Your task to perform on an android device: find which apps use the phone's location Image 0: 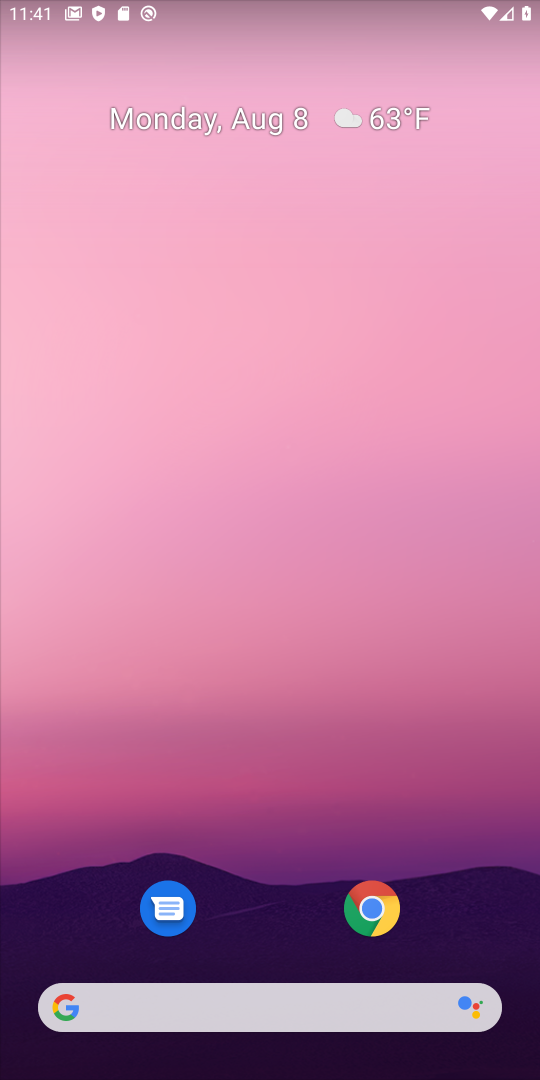
Step 0: drag from (459, 943) to (351, 120)
Your task to perform on an android device: find which apps use the phone's location Image 1: 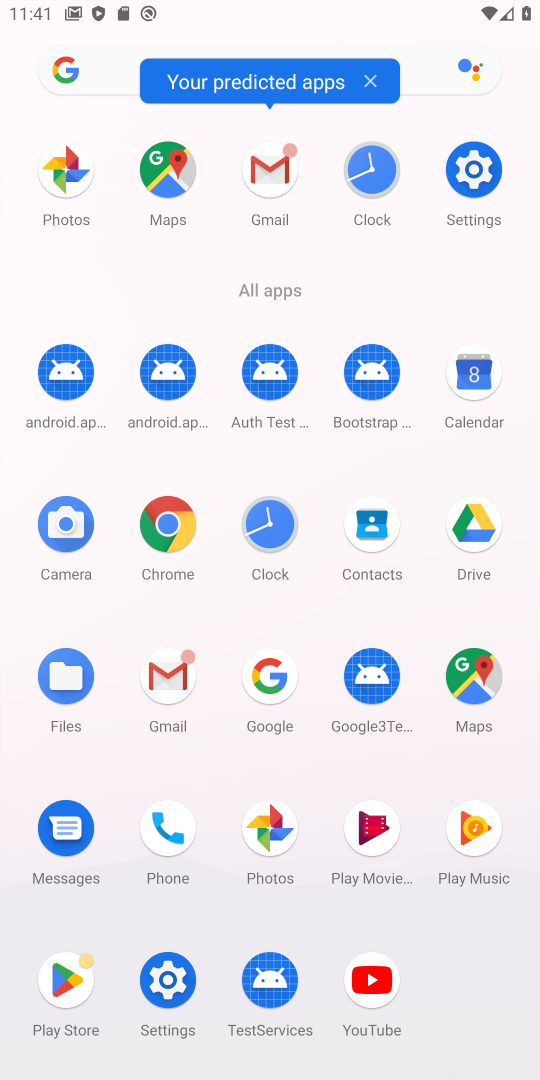
Step 1: click (483, 191)
Your task to perform on an android device: find which apps use the phone's location Image 2: 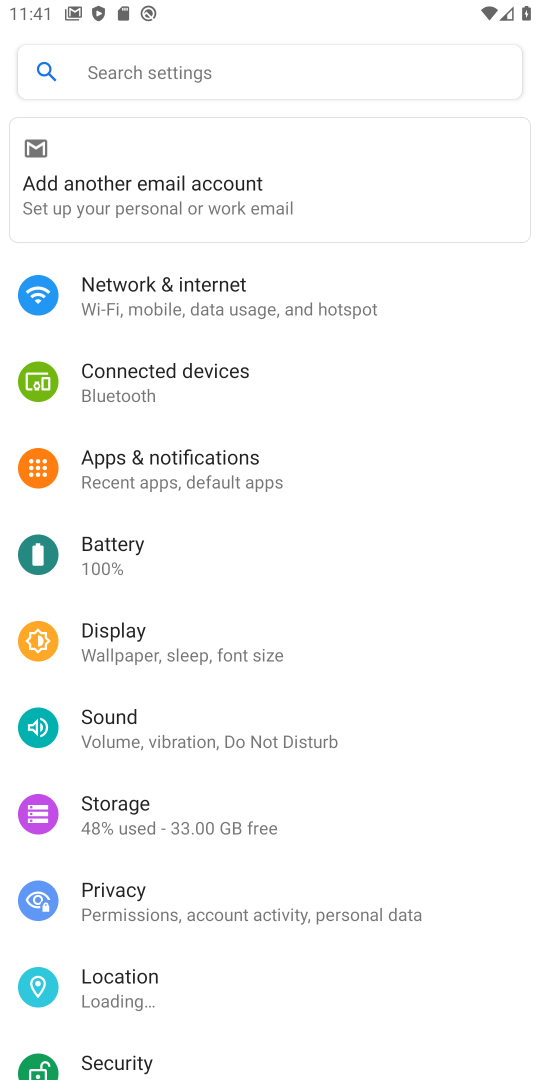
Step 2: click (237, 999)
Your task to perform on an android device: find which apps use the phone's location Image 3: 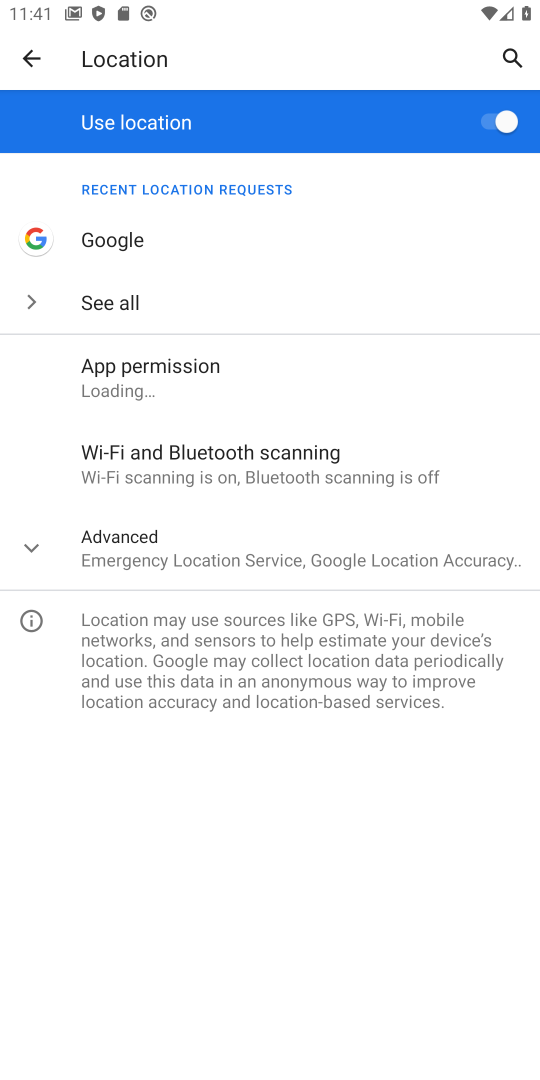
Step 3: click (257, 361)
Your task to perform on an android device: find which apps use the phone's location Image 4: 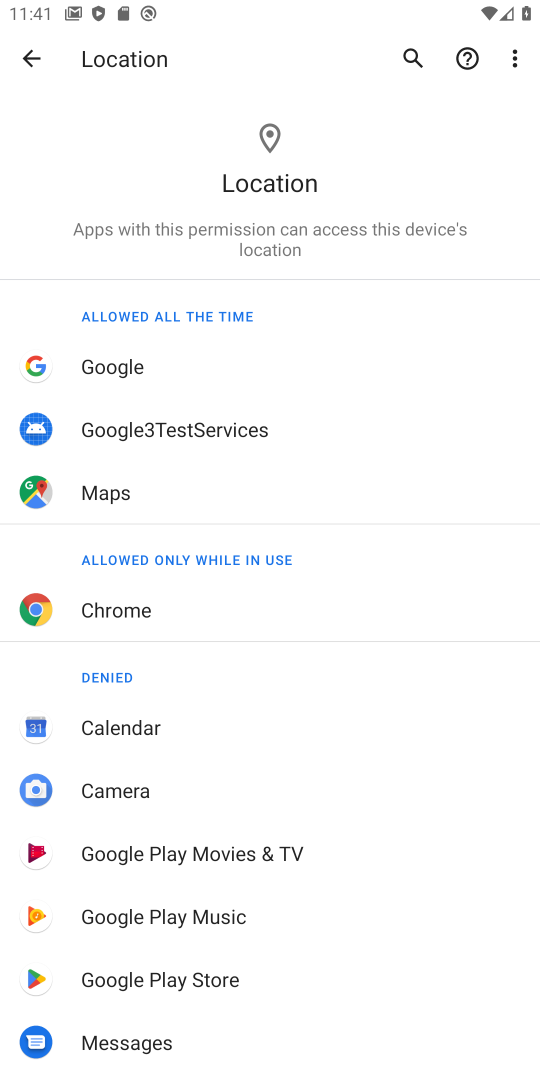
Step 4: task complete